Your task to perform on an android device: check the backup settings in the google photos Image 0: 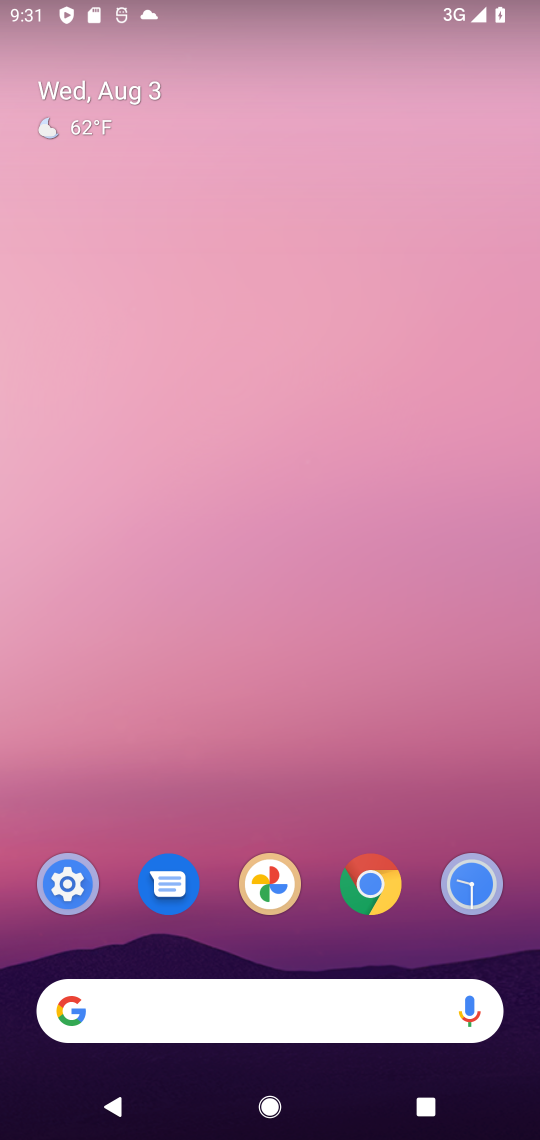
Step 0: click (400, 452)
Your task to perform on an android device: check the backup settings in the google photos Image 1: 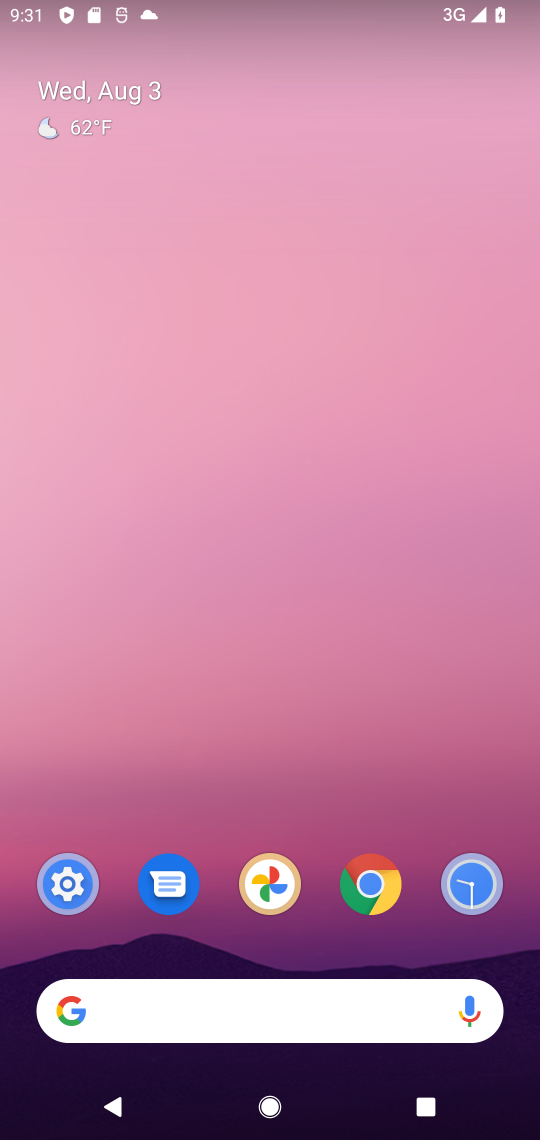
Step 1: drag from (180, 972) to (362, 339)
Your task to perform on an android device: check the backup settings in the google photos Image 2: 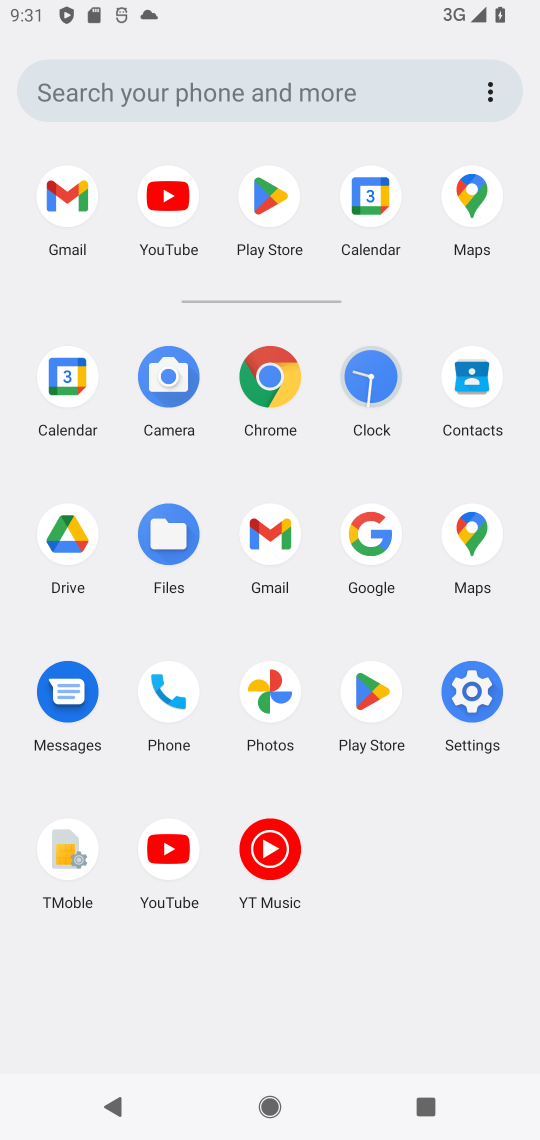
Step 2: click (277, 698)
Your task to perform on an android device: check the backup settings in the google photos Image 3: 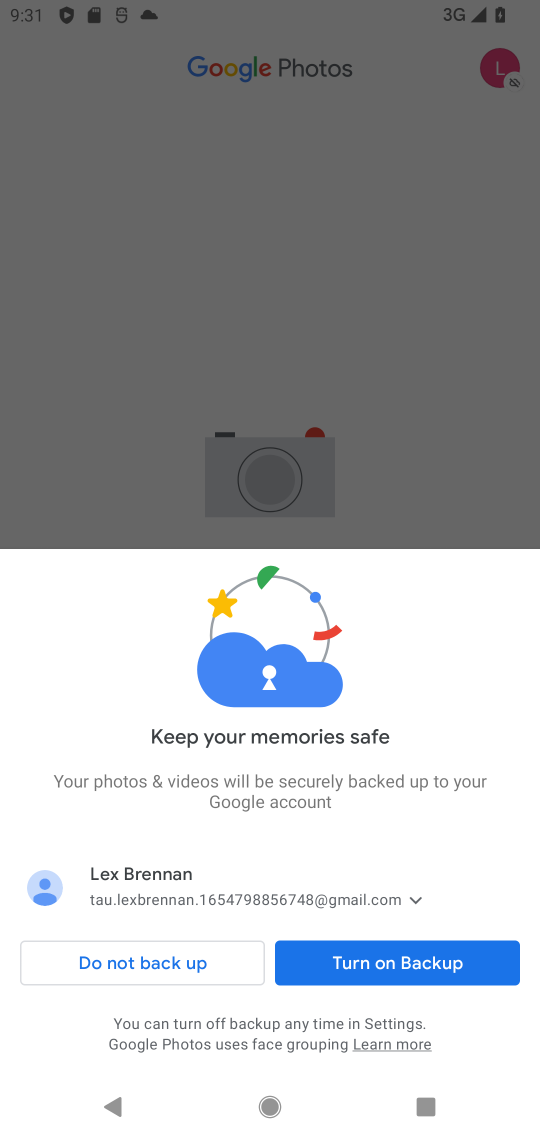
Step 3: drag from (339, 812) to (433, 277)
Your task to perform on an android device: check the backup settings in the google photos Image 4: 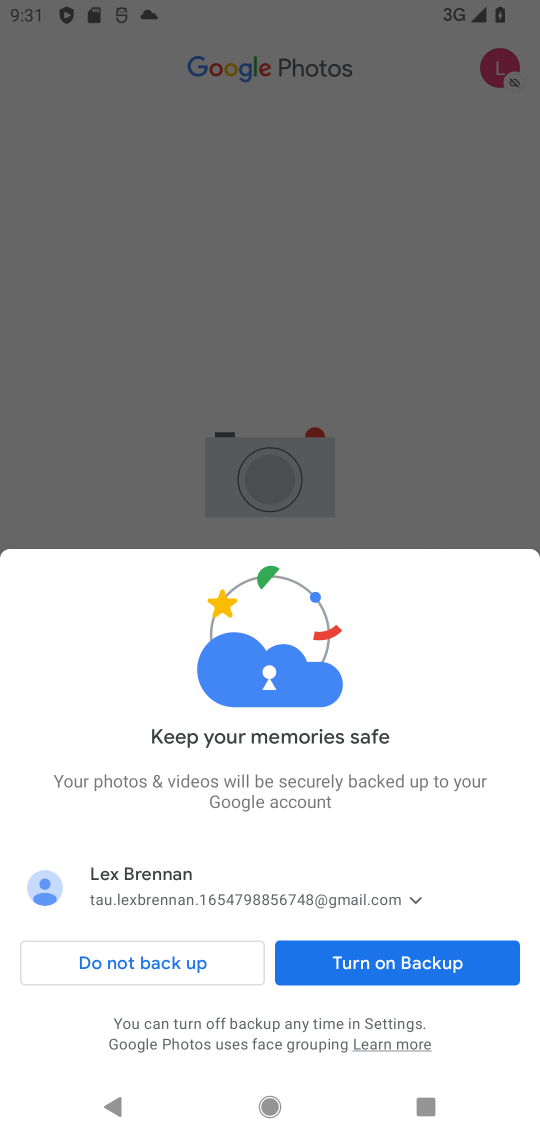
Step 4: drag from (167, 912) to (409, 439)
Your task to perform on an android device: check the backup settings in the google photos Image 5: 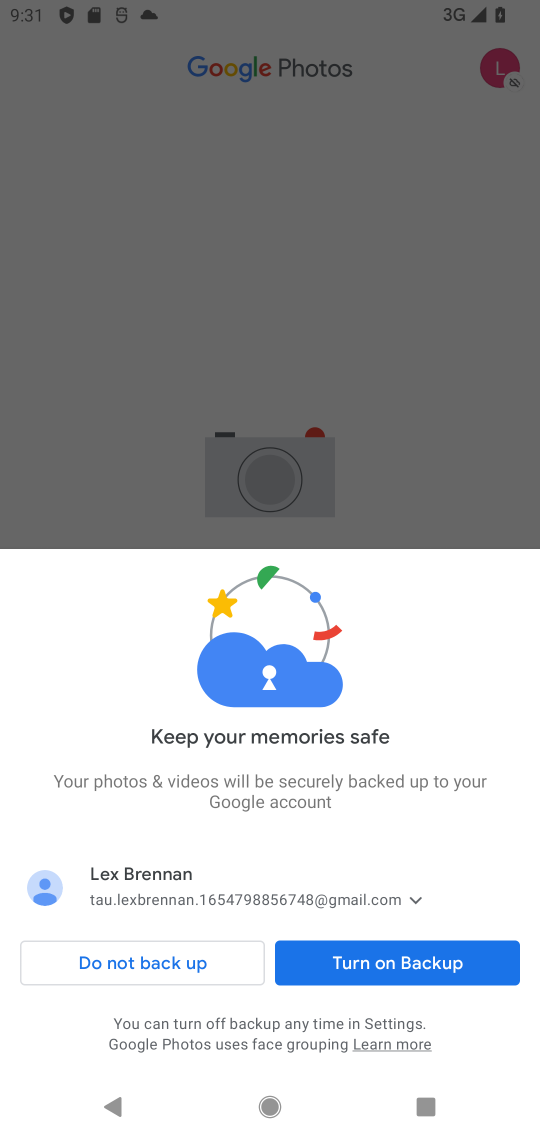
Step 5: click (374, 975)
Your task to perform on an android device: check the backup settings in the google photos Image 6: 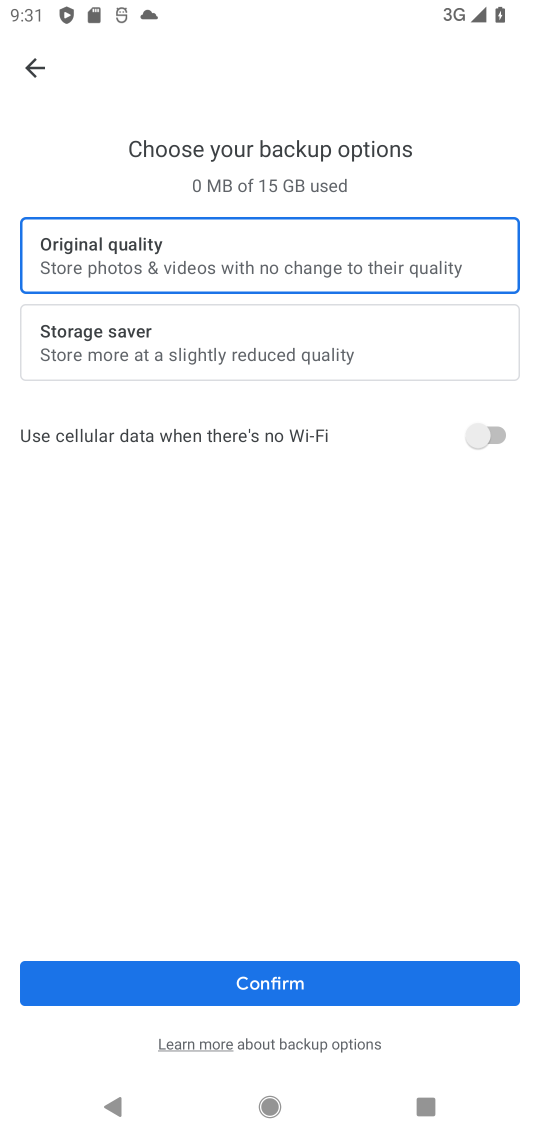
Step 6: task complete